Your task to perform on an android device: Open Google Maps and go to "Timeline" Image 0: 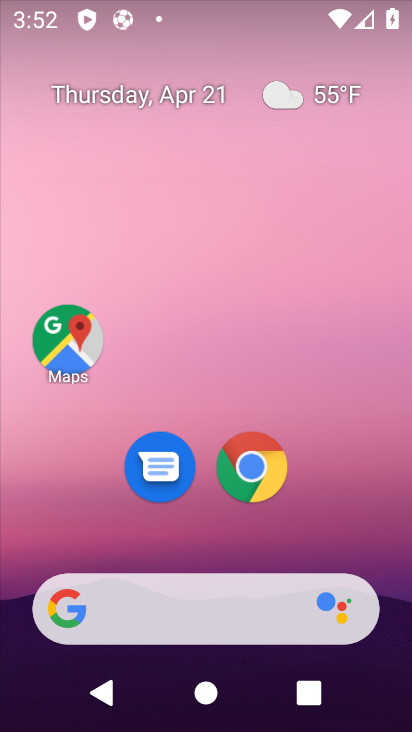
Step 0: drag from (258, 673) to (264, 298)
Your task to perform on an android device: Open Google Maps and go to "Timeline" Image 1: 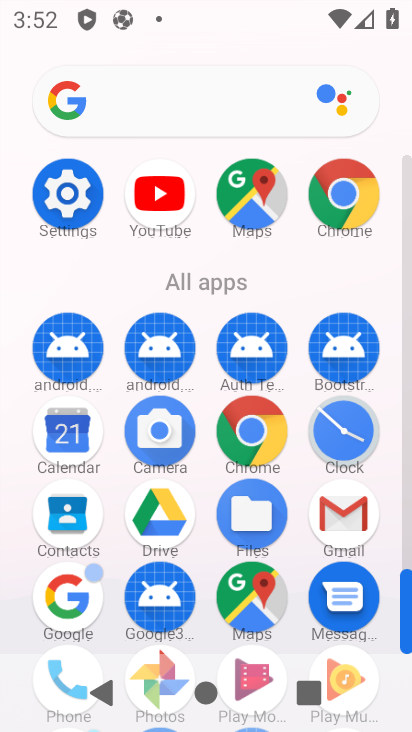
Step 1: click (238, 604)
Your task to perform on an android device: Open Google Maps and go to "Timeline" Image 2: 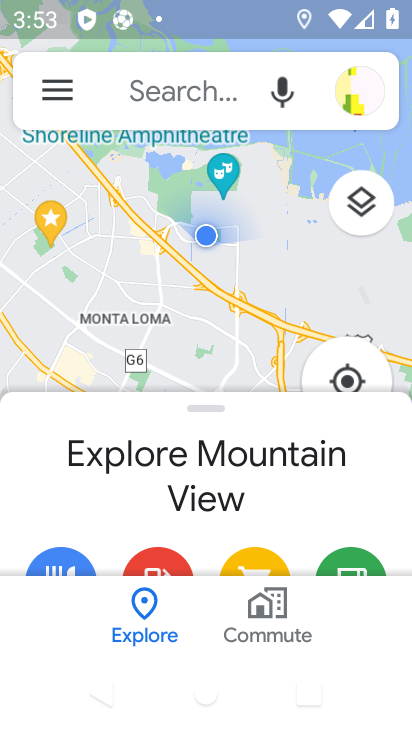
Step 2: click (58, 96)
Your task to perform on an android device: Open Google Maps and go to "Timeline" Image 3: 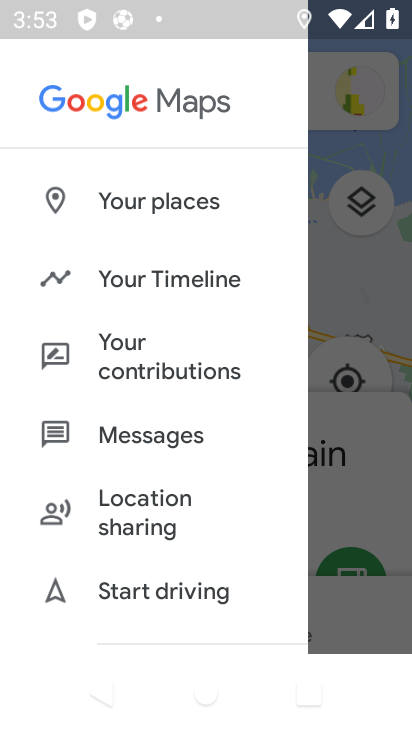
Step 3: click (203, 267)
Your task to perform on an android device: Open Google Maps and go to "Timeline" Image 4: 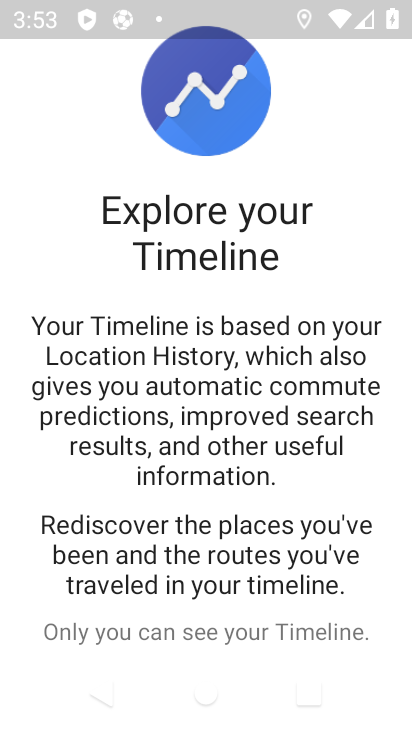
Step 4: task complete